Your task to perform on an android device: Go to Google maps Image 0: 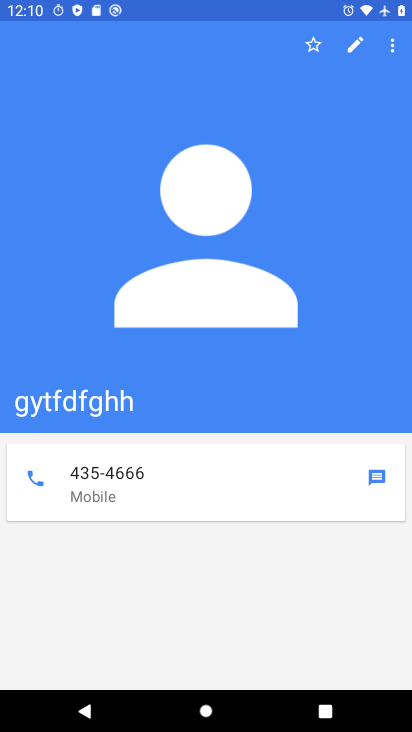
Step 0: press home button
Your task to perform on an android device: Go to Google maps Image 1: 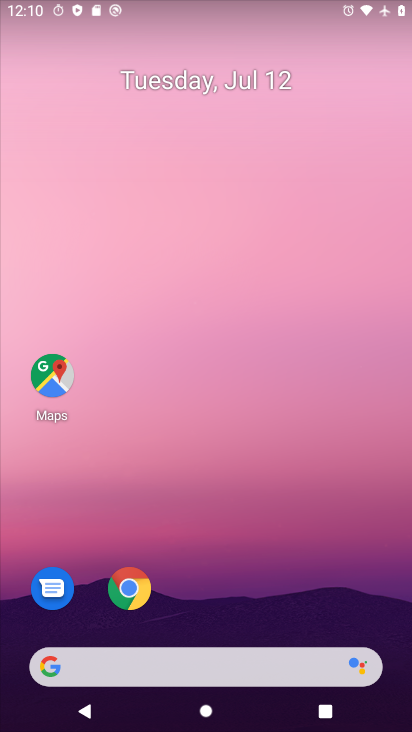
Step 1: click (56, 377)
Your task to perform on an android device: Go to Google maps Image 2: 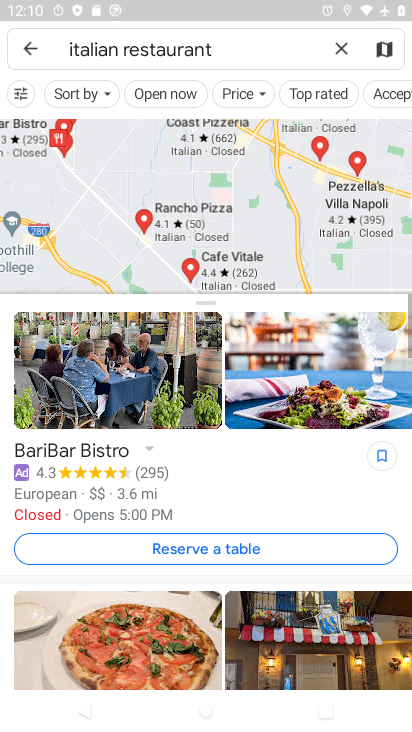
Step 2: click (32, 52)
Your task to perform on an android device: Go to Google maps Image 3: 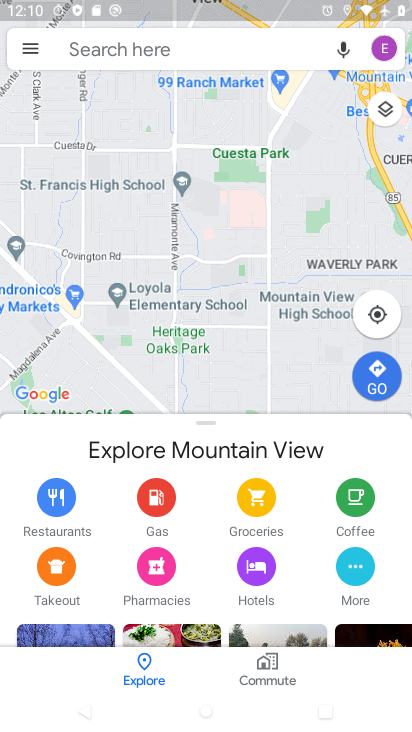
Step 3: task complete